Your task to perform on an android device: change the clock style Image 0: 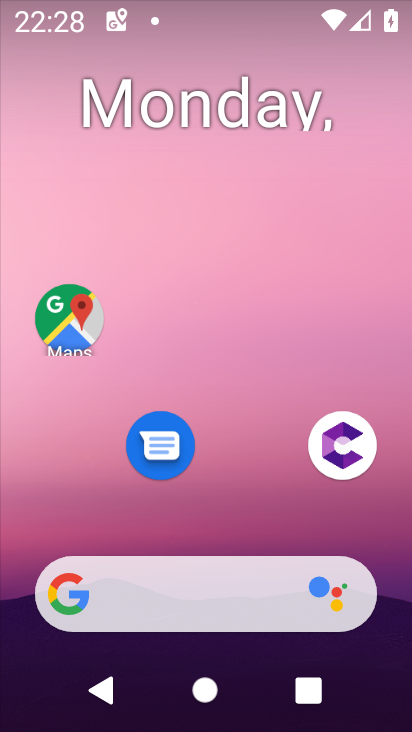
Step 0: press home button
Your task to perform on an android device: change the clock style Image 1: 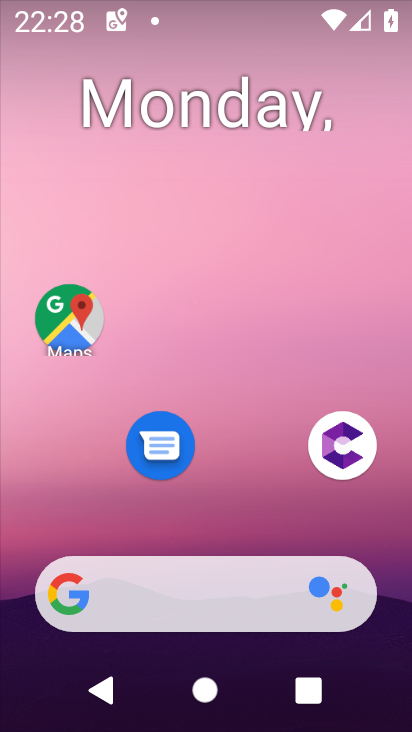
Step 1: drag from (254, 529) to (246, 165)
Your task to perform on an android device: change the clock style Image 2: 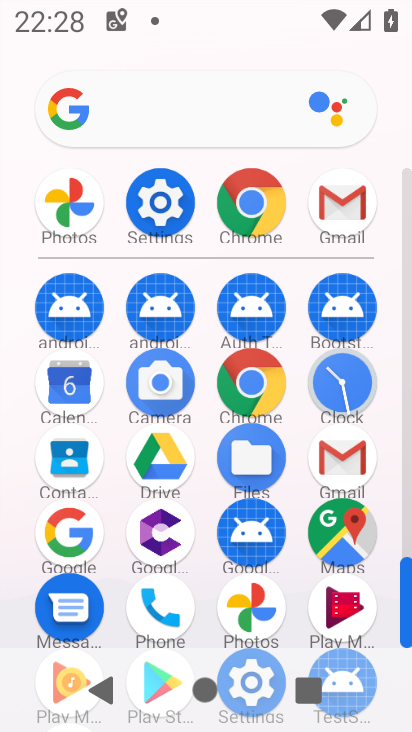
Step 2: click (344, 404)
Your task to perform on an android device: change the clock style Image 3: 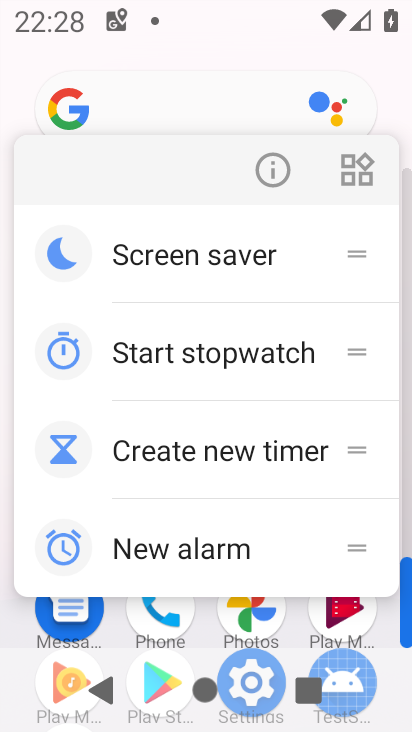
Step 3: press home button
Your task to perform on an android device: change the clock style Image 4: 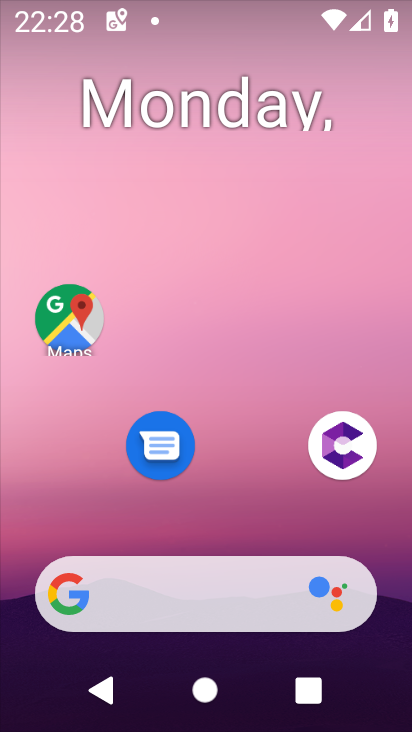
Step 4: drag from (262, 480) to (247, 231)
Your task to perform on an android device: change the clock style Image 5: 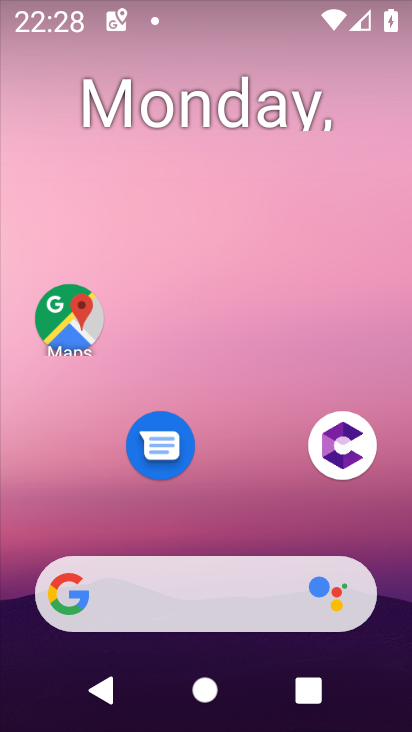
Step 5: drag from (255, 444) to (279, 102)
Your task to perform on an android device: change the clock style Image 6: 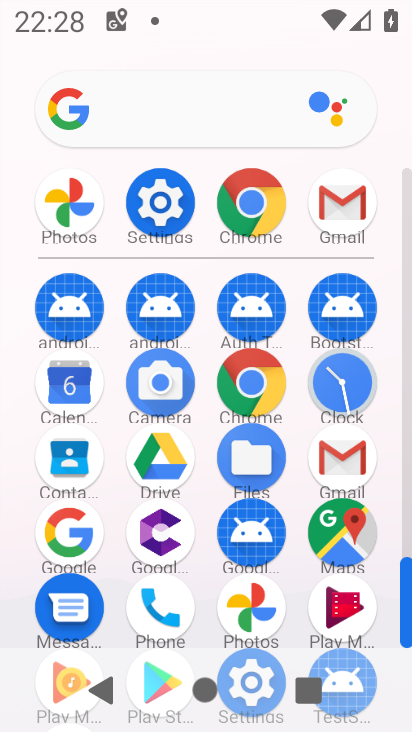
Step 6: click (343, 413)
Your task to perform on an android device: change the clock style Image 7: 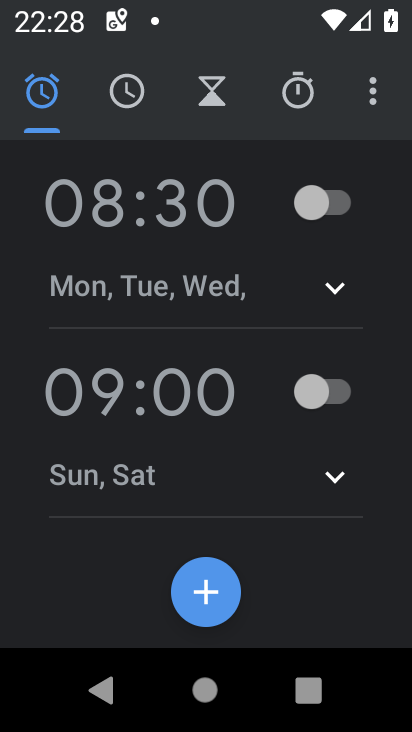
Step 7: click (381, 102)
Your task to perform on an android device: change the clock style Image 8: 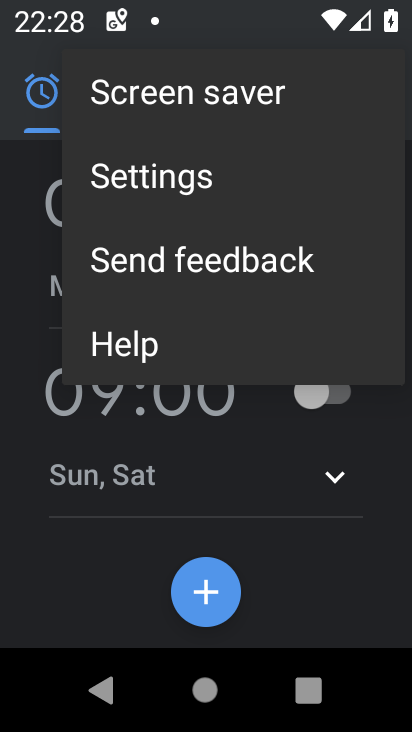
Step 8: click (143, 178)
Your task to perform on an android device: change the clock style Image 9: 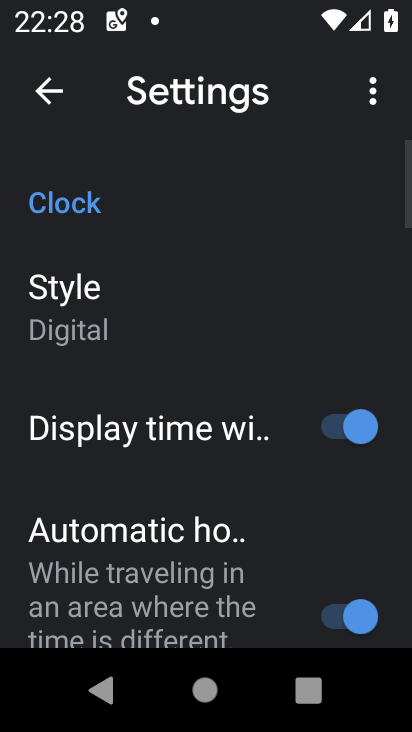
Step 9: click (75, 295)
Your task to perform on an android device: change the clock style Image 10: 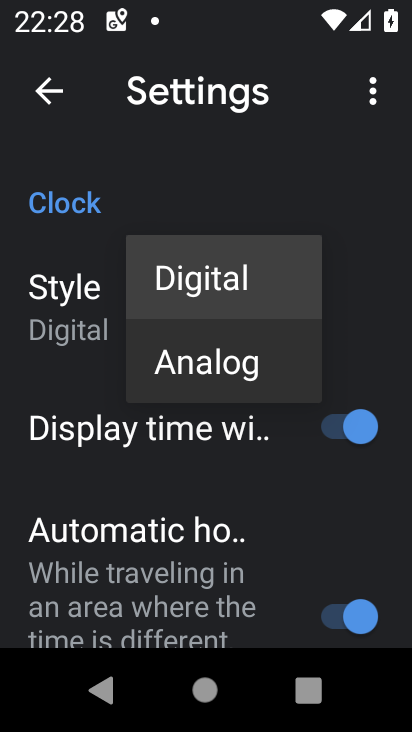
Step 10: click (177, 356)
Your task to perform on an android device: change the clock style Image 11: 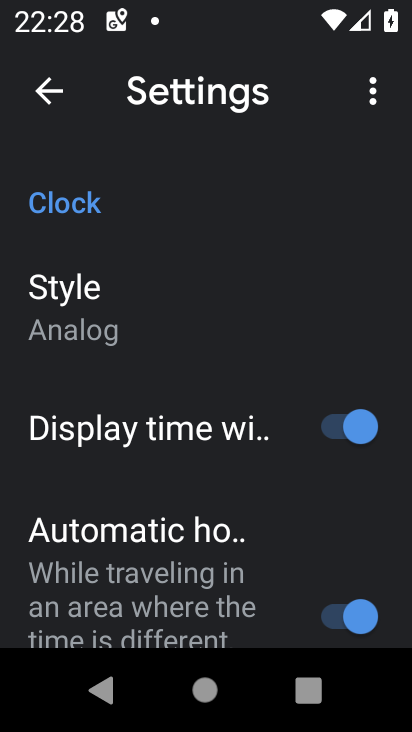
Step 11: task complete